Your task to perform on an android device: Open Youtube and go to the subscriptions tab Image 0: 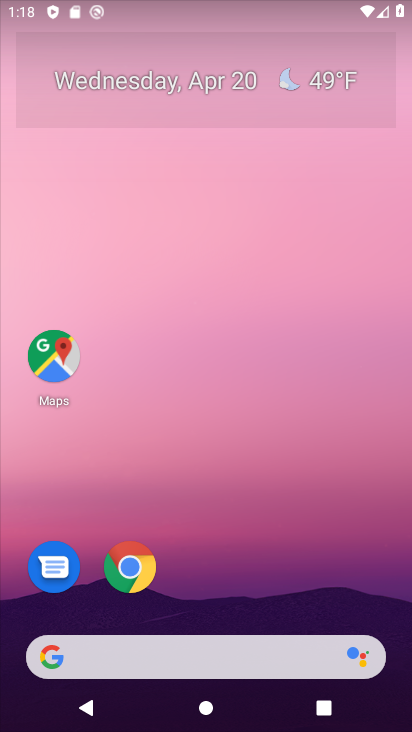
Step 0: drag from (300, 587) to (304, 216)
Your task to perform on an android device: Open Youtube and go to the subscriptions tab Image 1: 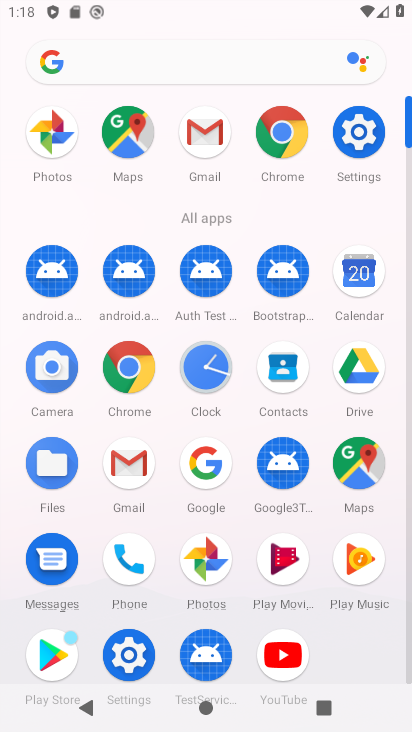
Step 1: click (292, 661)
Your task to perform on an android device: Open Youtube and go to the subscriptions tab Image 2: 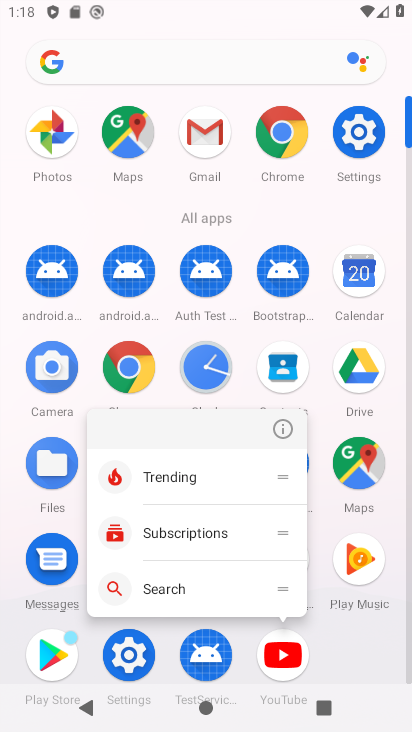
Step 2: click (291, 667)
Your task to perform on an android device: Open Youtube and go to the subscriptions tab Image 3: 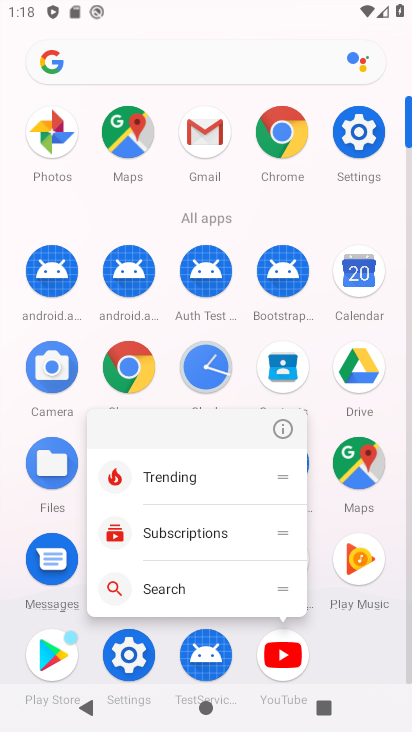
Step 3: click (291, 667)
Your task to perform on an android device: Open Youtube and go to the subscriptions tab Image 4: 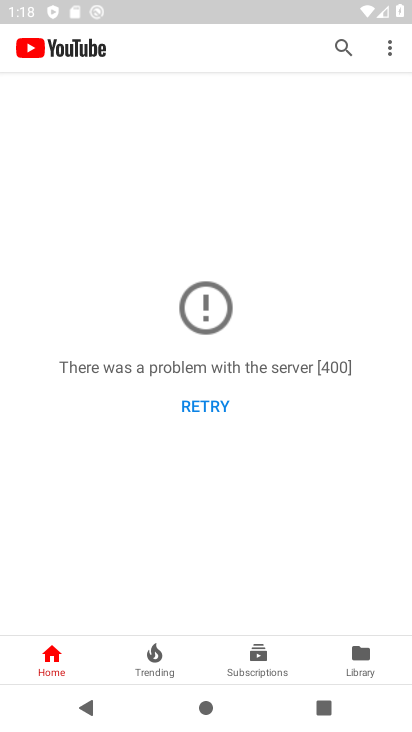
Step 4: click (272, 678)
Your task to perform on an android device: Open Youtube and go to the subscriptions tab Image 5: 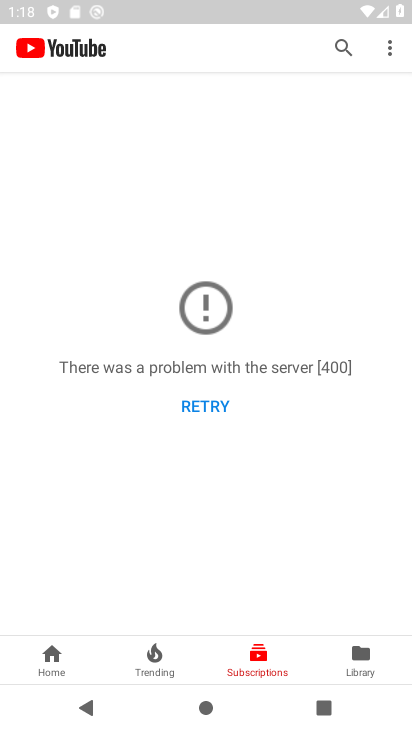
Step 5: task complete